Your task to perform on an android device: find snoozed emails in the gmail app Image 0: 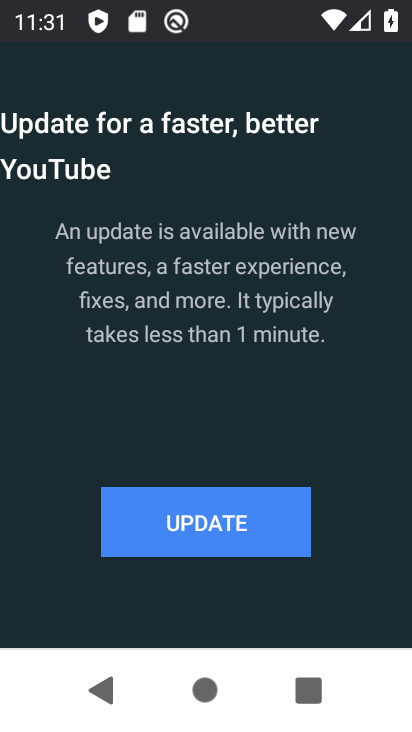
Step 0: press home button
Your task to perform on an android device: find snoozed emails in the gmail app Image 1: 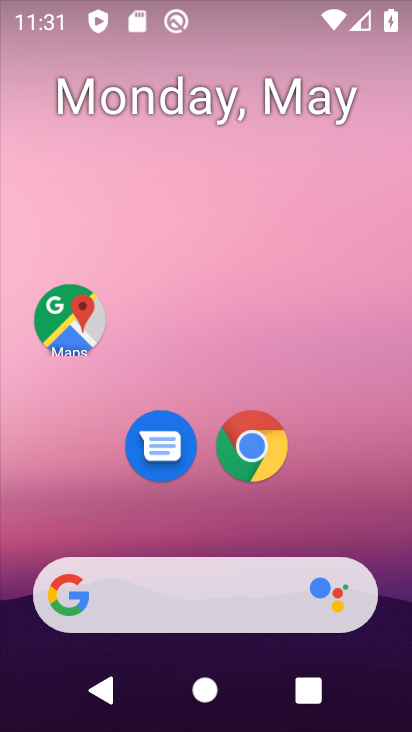
Step 1: drag from (317, 497) to (239, 11)
Your task to perform on an android device: find snoozed emails in the gmail app Image 2: 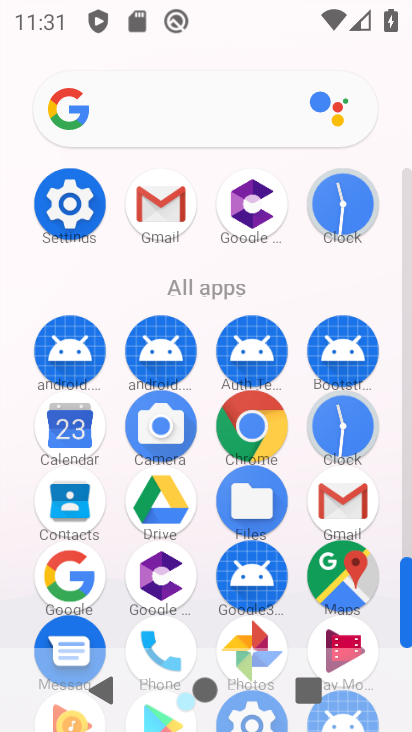
Step 2: click (151, 216)
Your task to perform on an android device: find snoozed emails in the gmail app Image 3: 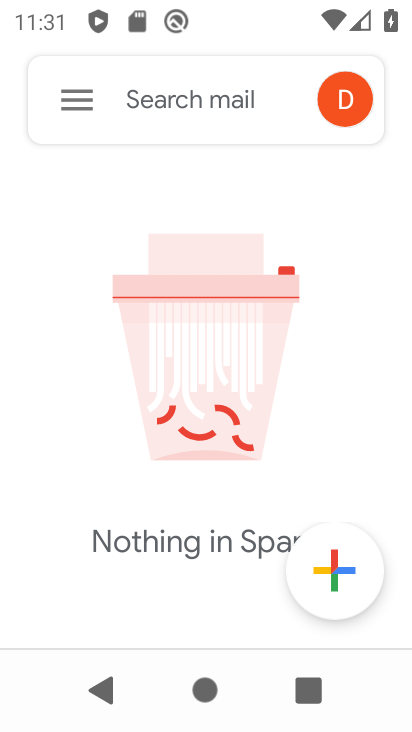
Step 3: click (75, 87)
Your task to perform on an android device: find snoozed emails in the gmail app Image 4: 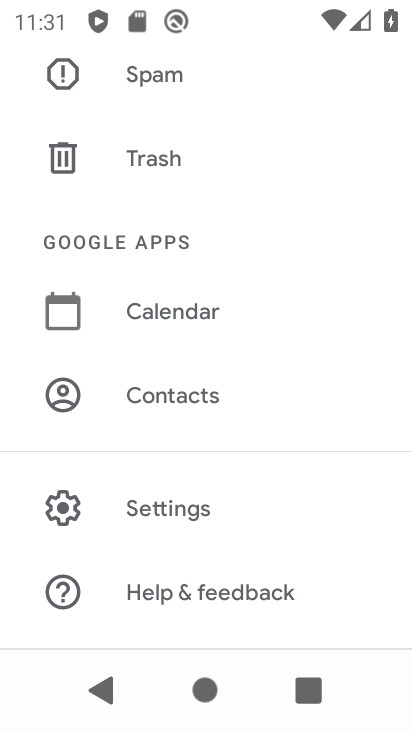
Step 4: drag from (280, 142) to (373, 696)
Your task to perform on an android device: find snoozed emails in the gmail app Image 5: 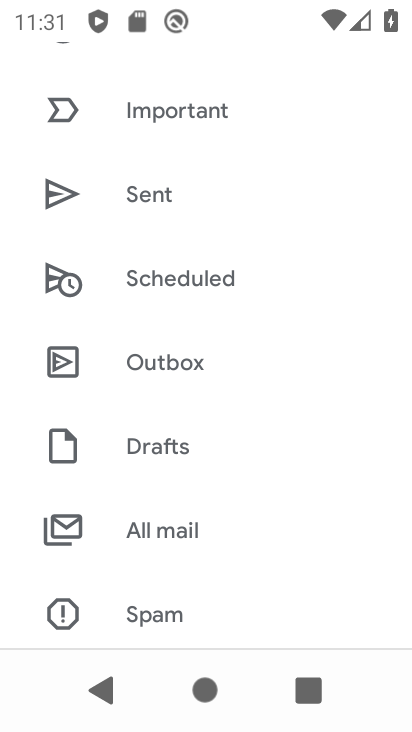
Step 5: drag from (228, 230) to (293, 652)
Your task to perform on an android device: find snoozed emails in the gmail app Image 6: 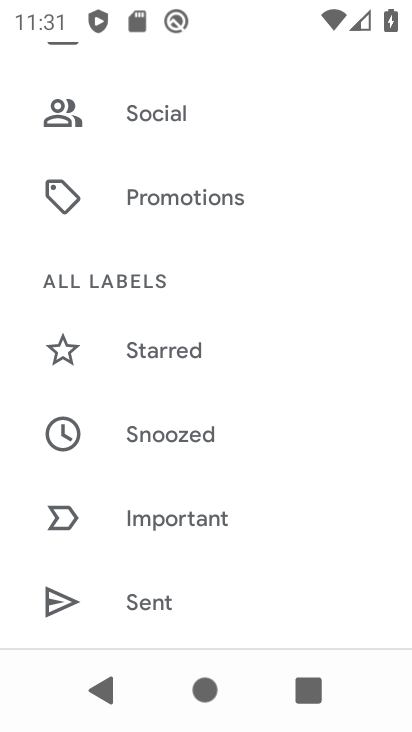
Step 6: click (181, 429)
Your task to perform on an android device: find snoozed emails in the gmail app Image 7: 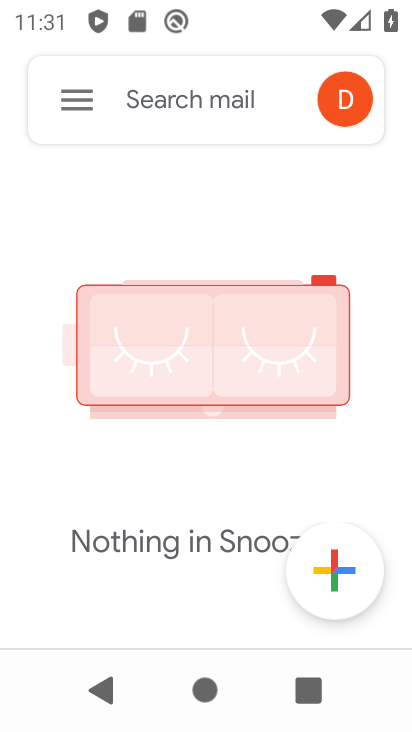
Step 7: task complete